Your task to perform on an android device: Open maps Image 0: 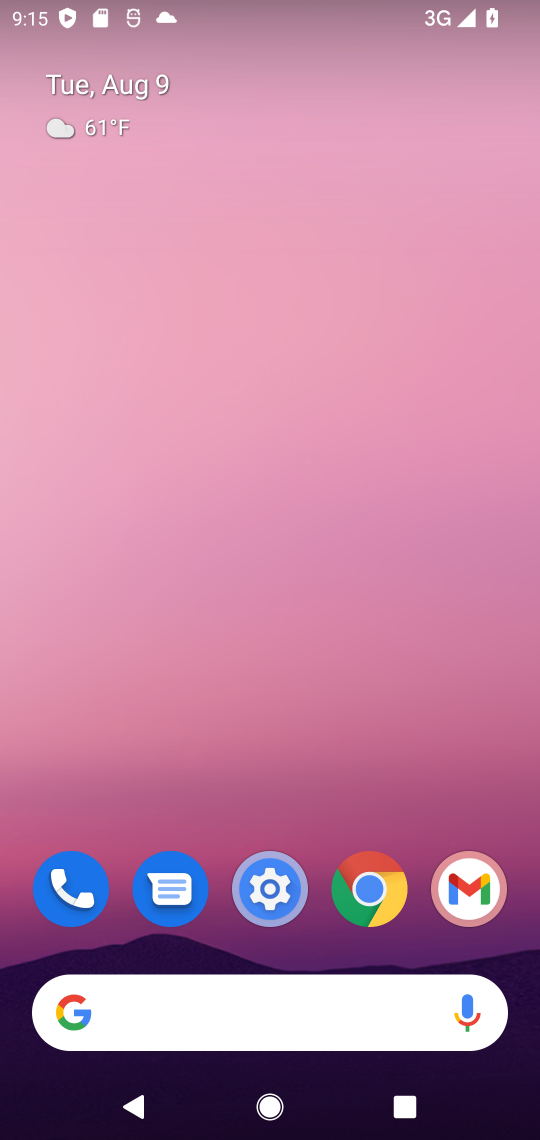
Step 0: drag from (288, 926) to (218, 151)
Your task to perform on an android device: Open maps Image 1: 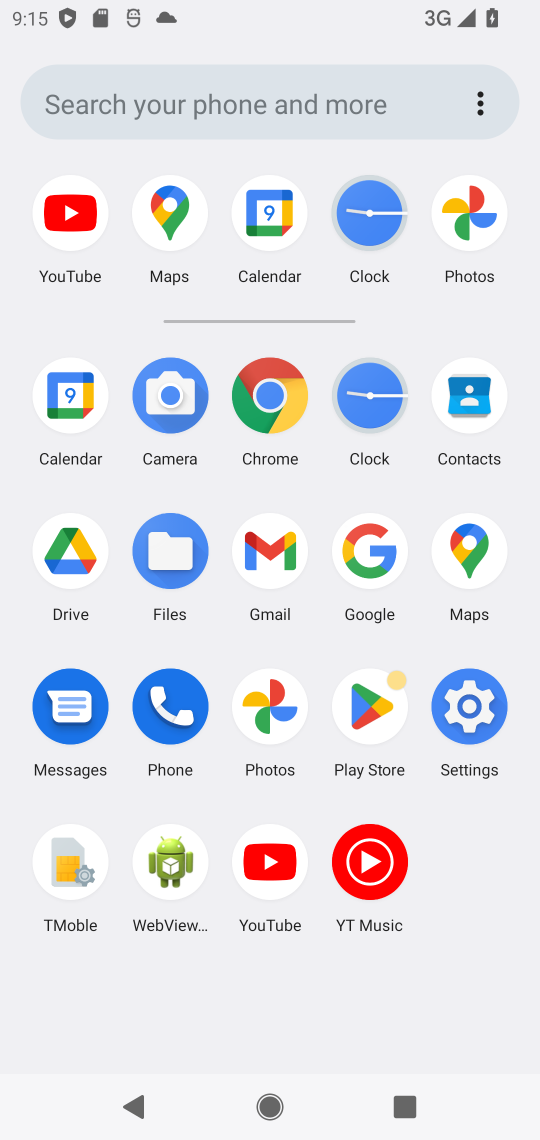
Step 1: click (469, 546)
Your task to perform on an android device: Open maps Image 2: 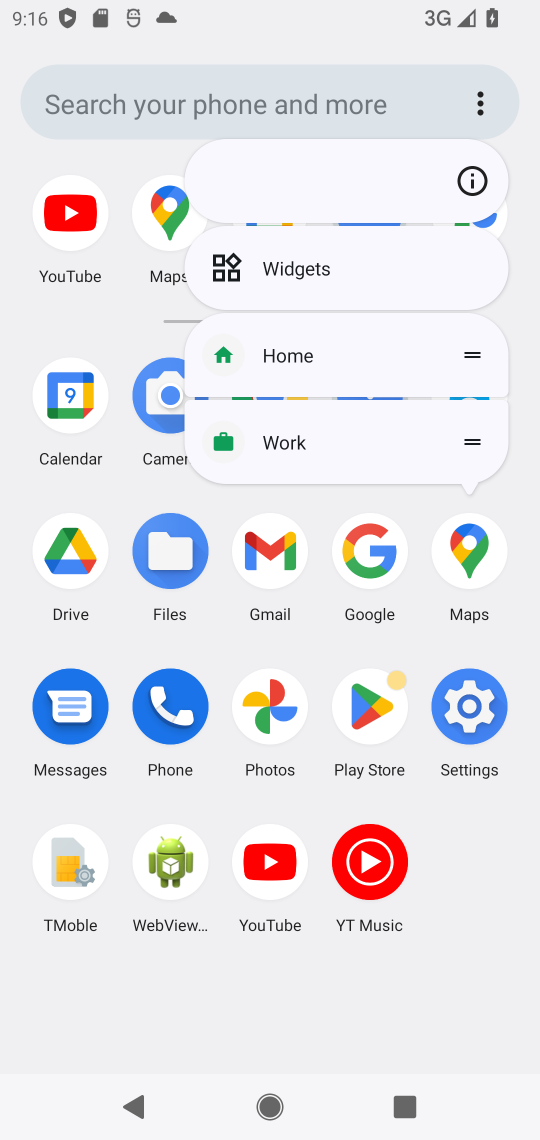
Step 2: click (468, 550)
Your task to perform on an android device: Open maps Image 3: 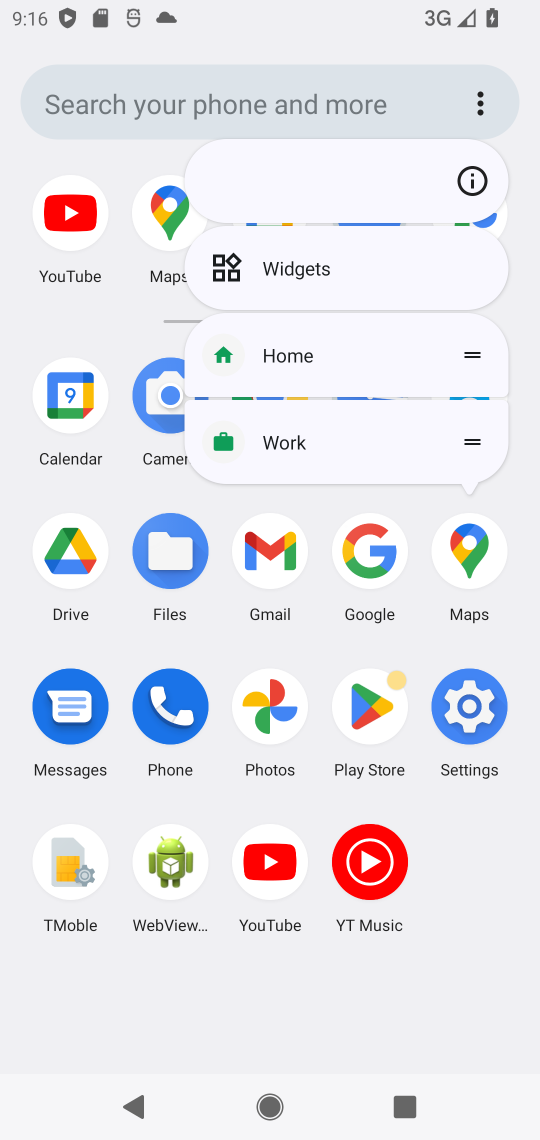
Step 3: click (468, 551)
Your task to perform on an android device: Open maps Image 4: 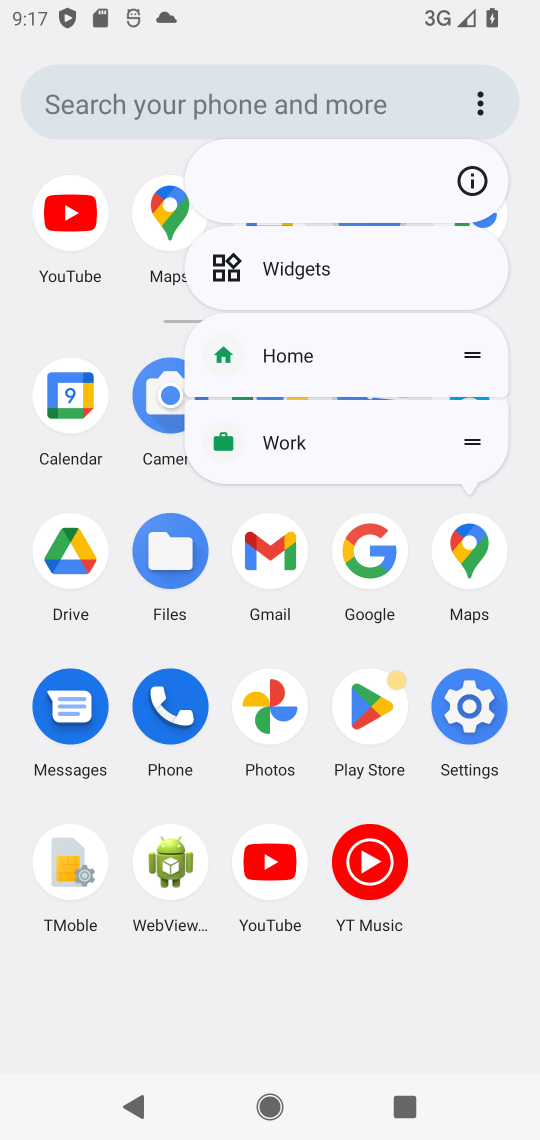
Step 4: click (469, 550)
Your task to perform on an android device: Open maps Image 5: 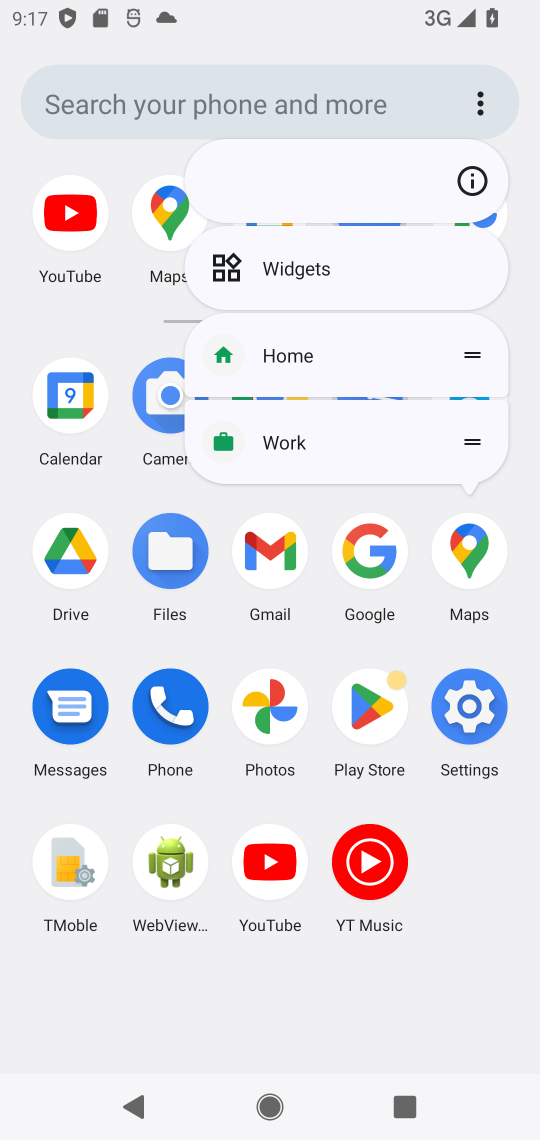
Step 5: click (469, 550)
Your task to perform on an android device: Open maps Image 6: 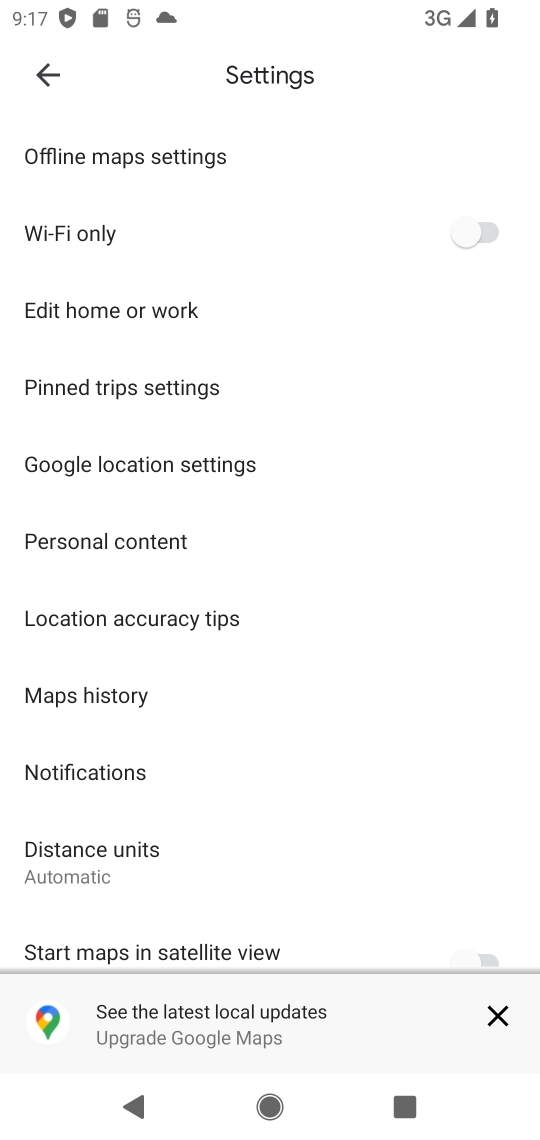
Step 6: click (35, 82)
Your task to perform on an android device: Open maps Image 7: 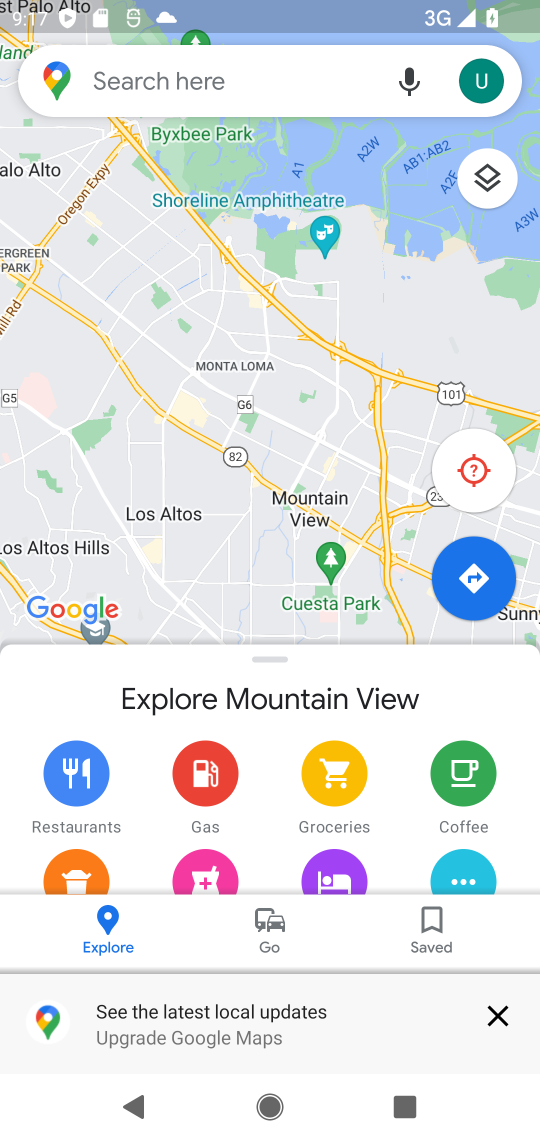
Step 7: task complete